Your task to perform on an android device: Go to wifi settings Image 0: 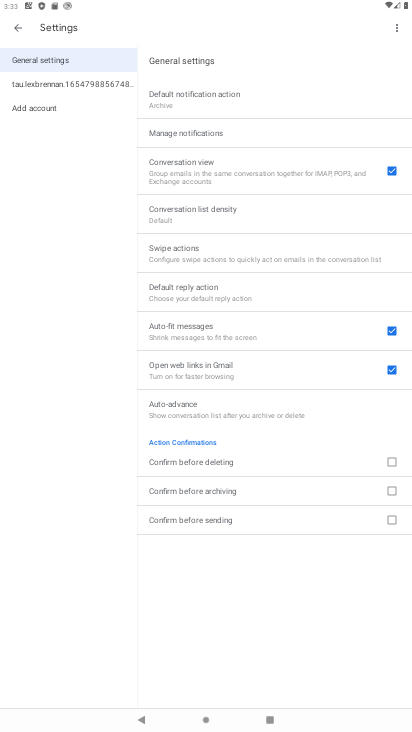
Step 0: press home button
Your task to perform on an android device: Go to wifi settings Image 1: 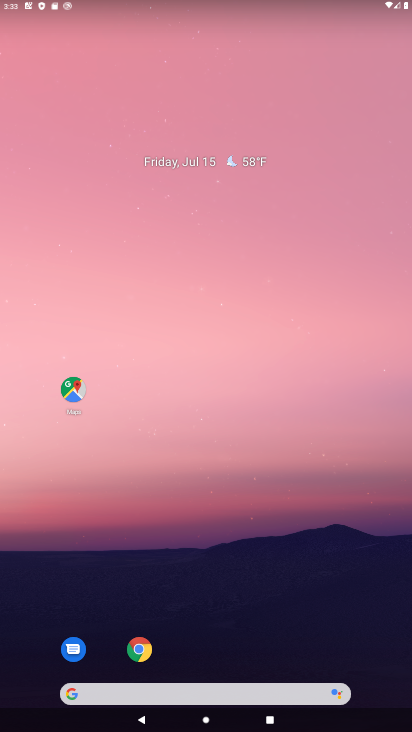
Step 1: drag from (220, 728) to (199, 47)
Your task to perform on an android device: Go to wifi settings Image 2: 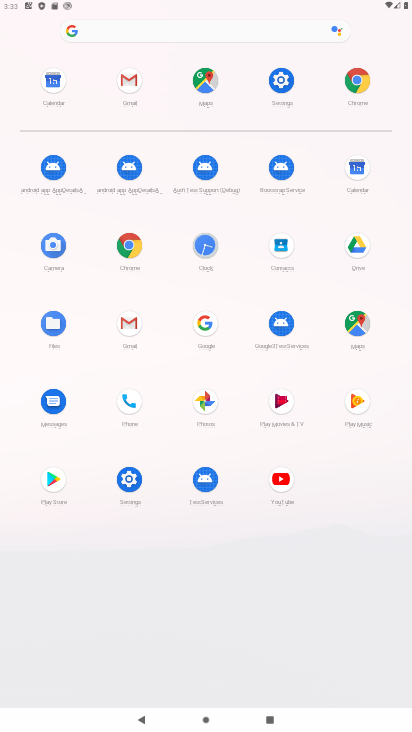
Step 2: click (280, 76)
Your task to perform on an android device: Go to wifi settings Image 3: 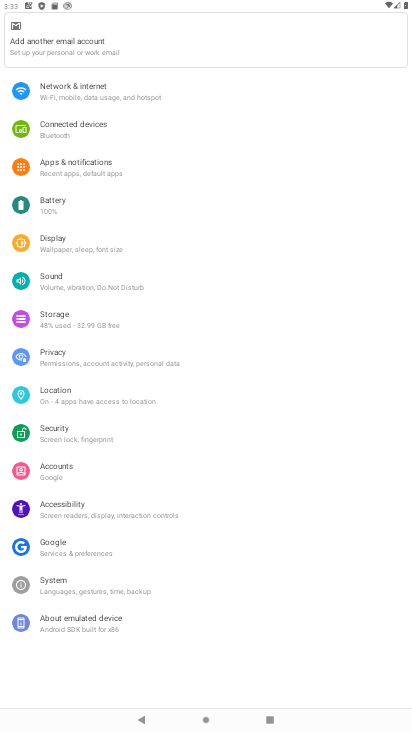
Step 3: click (83, 86)
Your task to perform on an android device: Go to wifi settings Image 4: 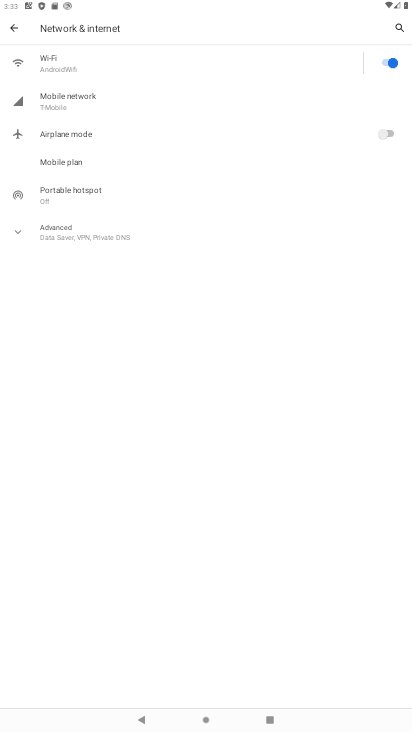
Step 4: click (47, 60)
Your task to perform on an android device: Go to wifi settings Image 5: 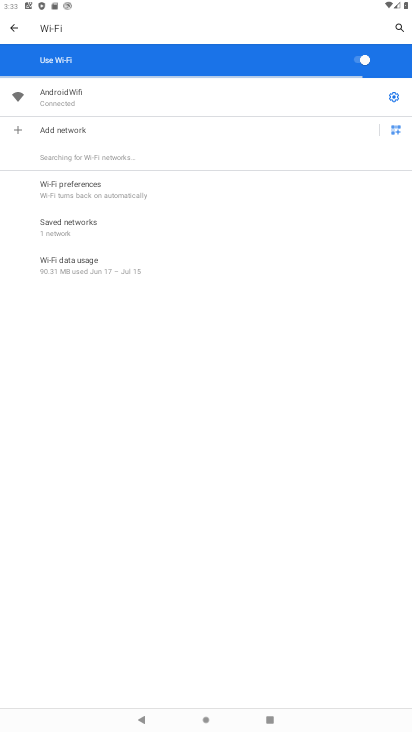
Step 5: task complete